Your task to perform on an android device: Go to Yahoo.com Image 0: 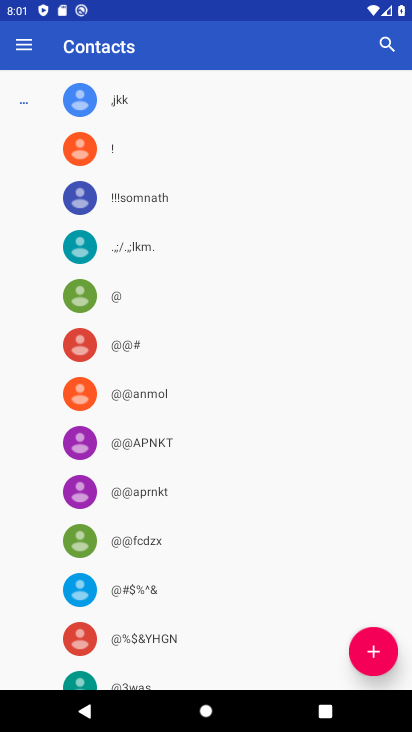
Step 0: press home button
Your task to perform on an android device: Go to Yahoo.com Image 1: 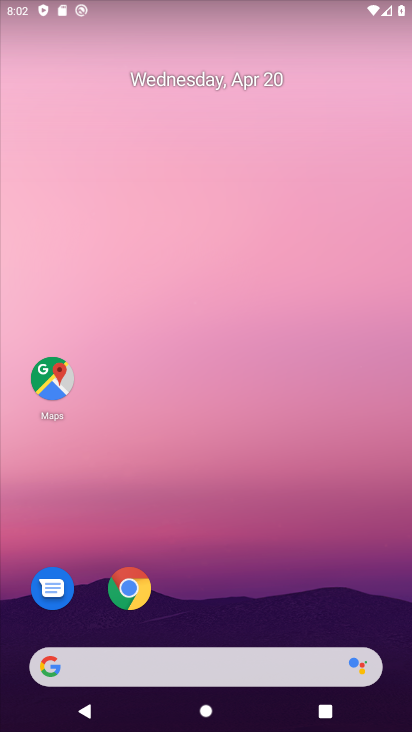
Step 1: drag from (251, 643) to (345, 178)
Your task to perform on an android device: Go to Yahoo.com Image 2: 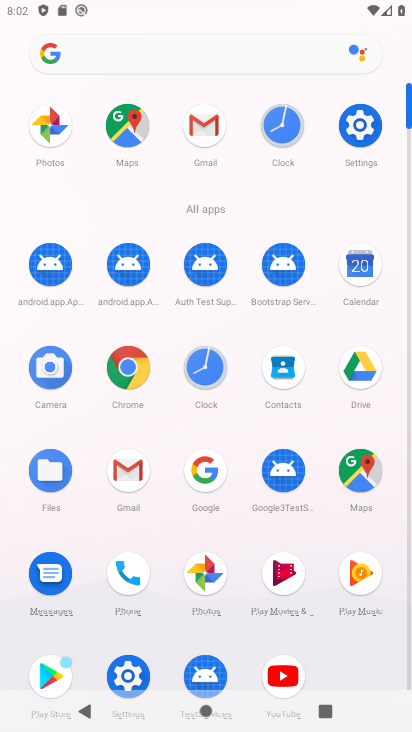
Step 2: click (135, 382)
Your task to perform on an android device: Go to Yahoo.com Image 3: 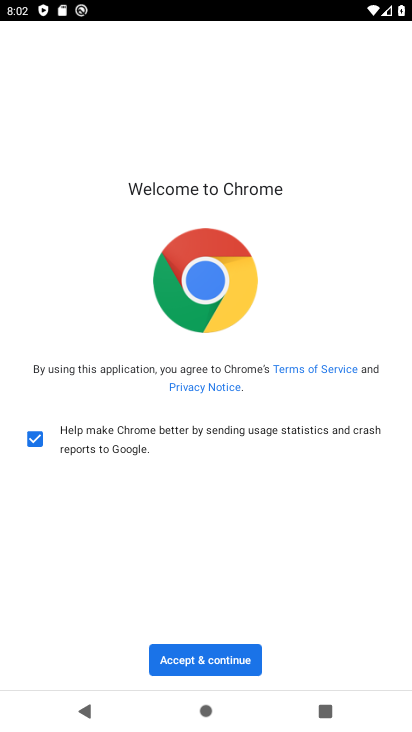
Step 3: click (211, 663)
Your task to perform on an android device: Go to Yahoo.com Image 4: 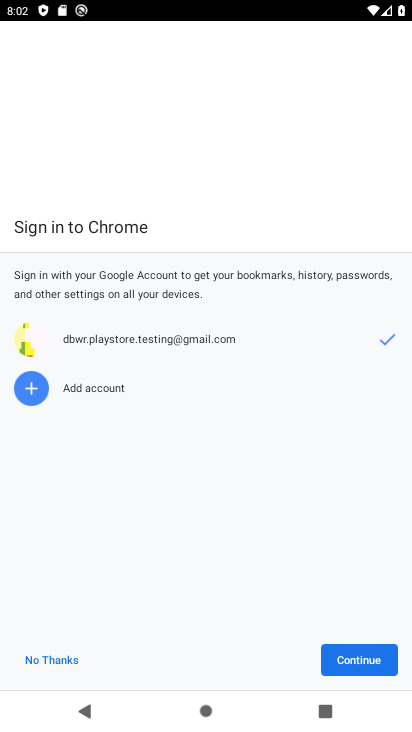
Step 4: click (377, 664)
Your task to perform on an android device: Go to Yahoo.com Image 5: 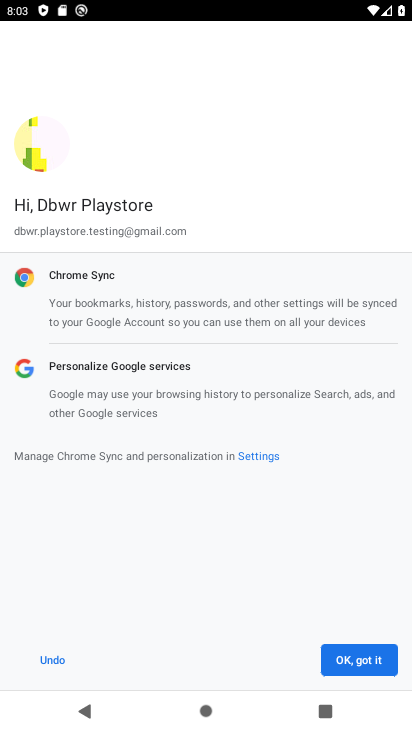
Step 5: click (346, 667)
Your task to perform on an android device: Go to Yahoo.com Image 6: 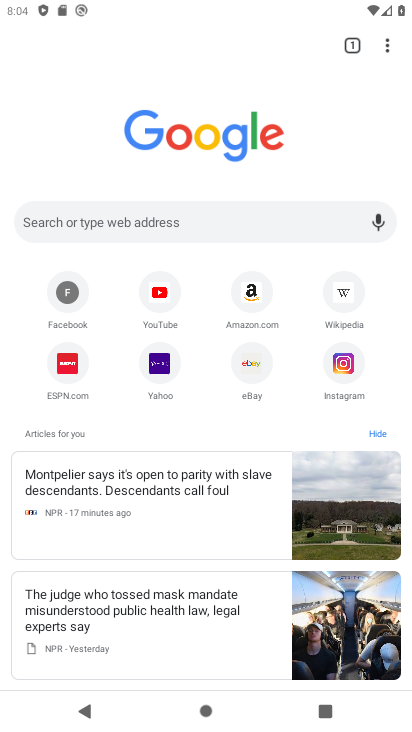
Step 6: click (155, 378)
Your task to perform on an android device: Go to Yahoo.com Image 7: 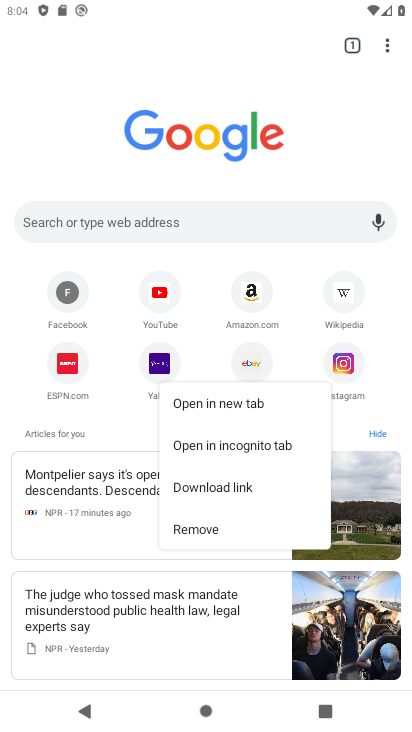
Step 7: click (162, 368)
Your task to perform on an android device: Go to Yahoo.com Image 8: 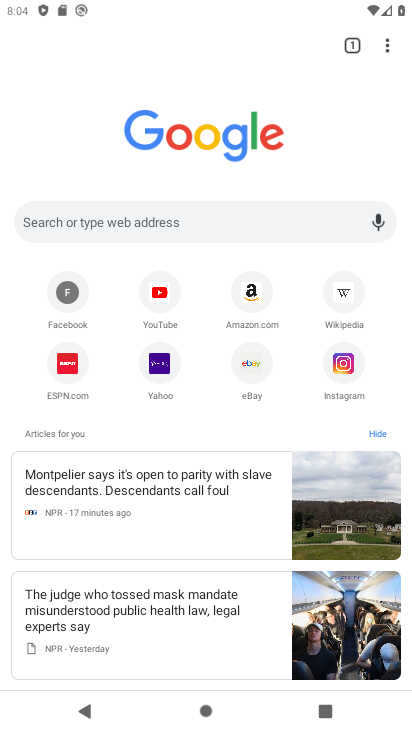
Step 8: click (161, 374)
Your task to perform on an android device: Go to Yahoo.com Image 9: 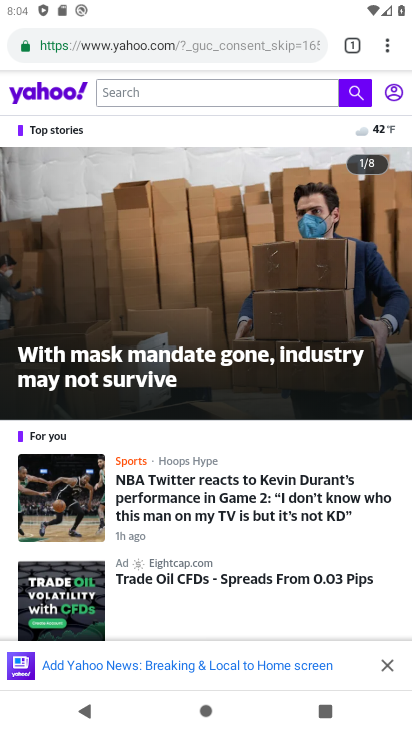
Step 9: task complete